Your task to perform on an android device: change the upload size in google photos Image 0: 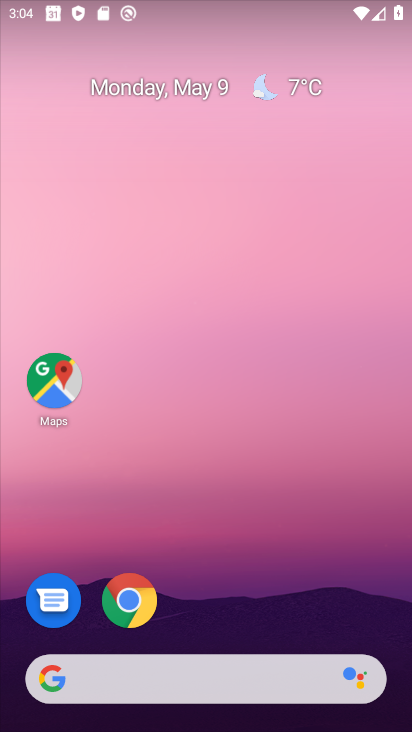
Step 0: drag from (244, 519) to (192, 54)
Your task to perform on an android device: change the upload size in google photos Image 1: 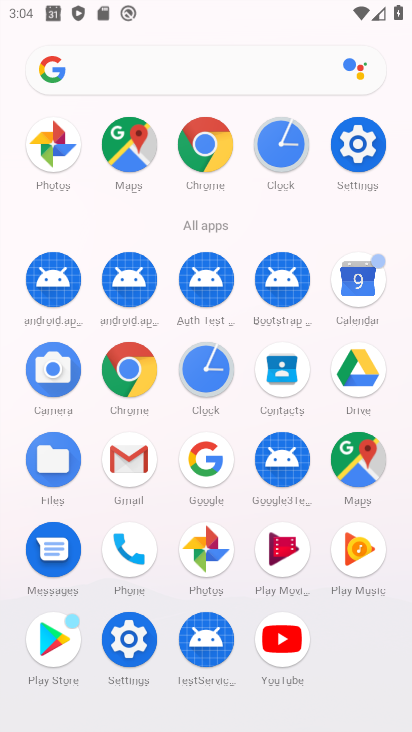
Step 1: drag from (3, 527) to (4, 284)
Your task to perform on an android device: change the upload size in google photos Image 2: 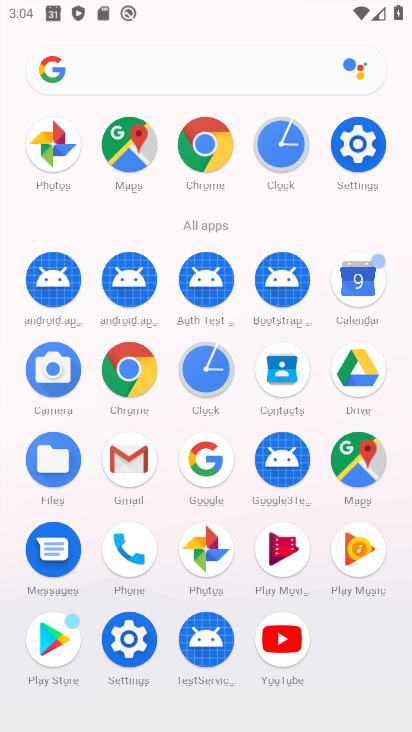
Step 2: click (48, 137)
Your task to perform on an android device: change the upload size in google photos Image 3: 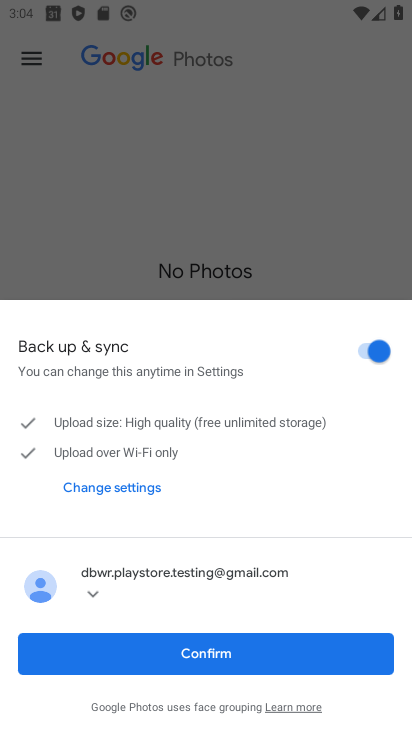
Step 3: click (195, 649)
Your task to perform on an android device: change the upload size in google photos Image 4: 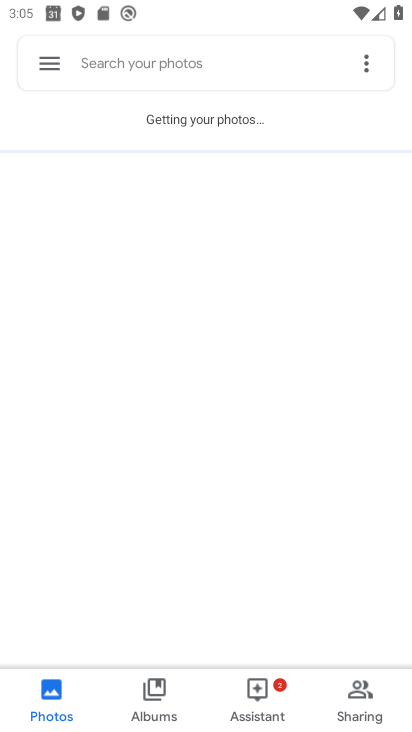
Step 4: click (51, 57)
Your task to perform on an android device: change the upload size in google photos Image 5: 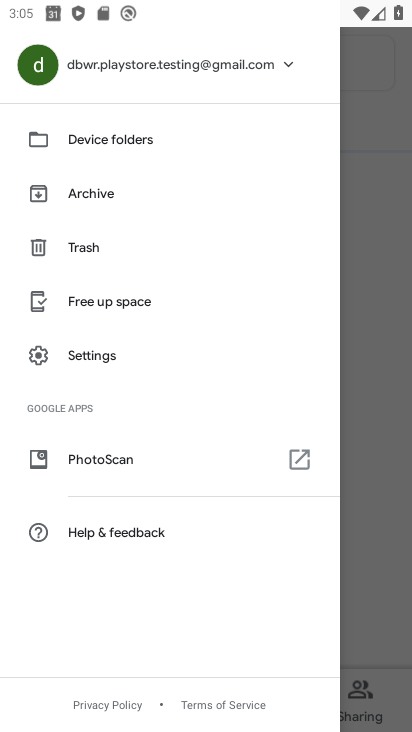
Step 5: click (117, 360)
Your task to perform on an android device: change the upload size in google photos Image 6: 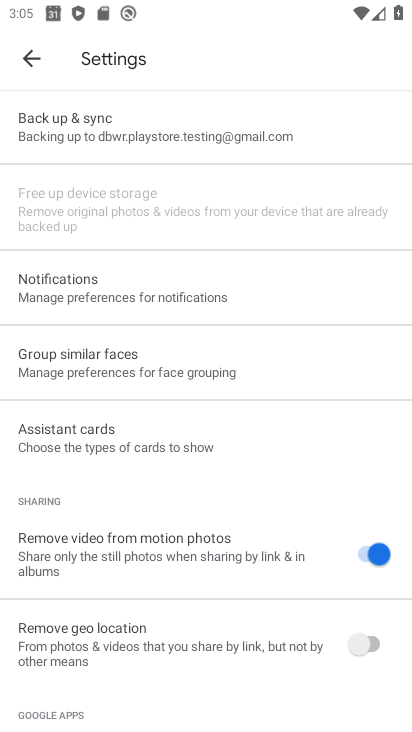
Step 6: drag from (220, 613) to (210, 113)
Your task to perform on an android device: change the upload size in google photos Image 7: 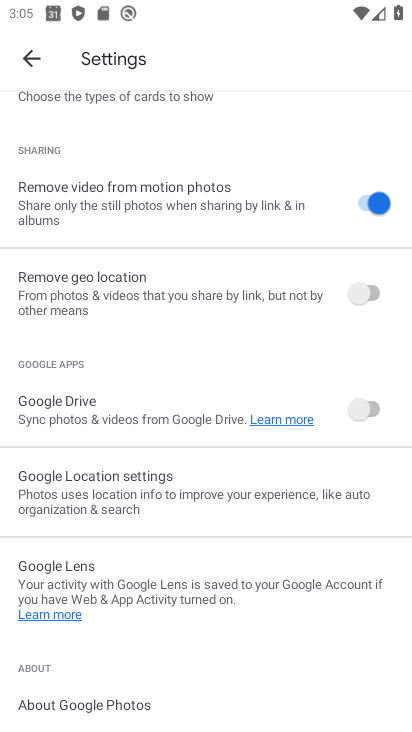
Step 7: drag from (210, 112) to (154, 590)
Your task to perform on an android device: change the upload size in google photos Image 8: 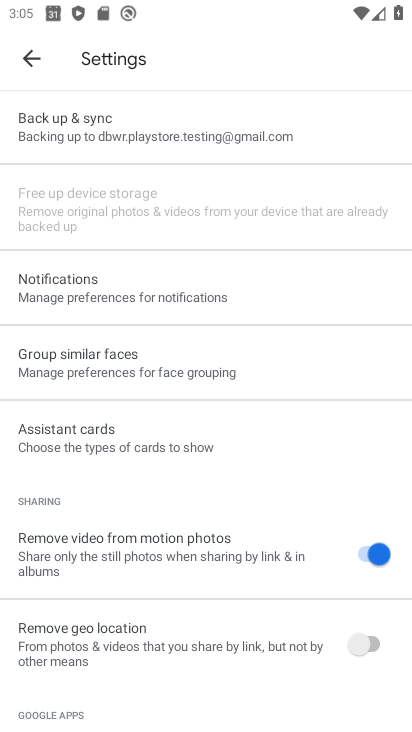
Step 8: drag from (232, 174) to (185, 512)
Your task to perform on an android device: change the upload size in google photos Image 9: 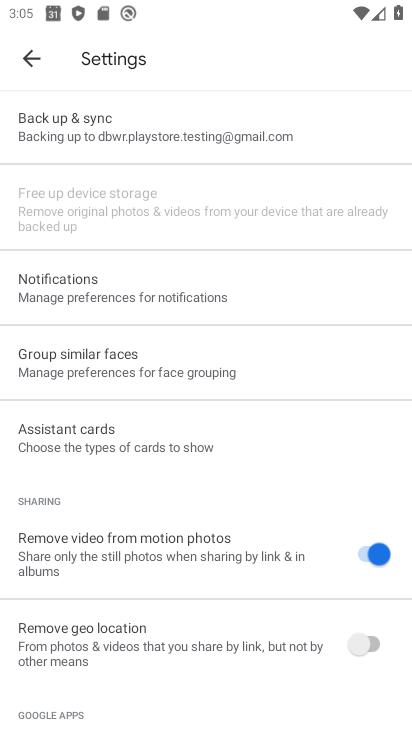
Step 9: click (174, 120)
Your task to perform on an android device: change the upload size in google photos Image 10: 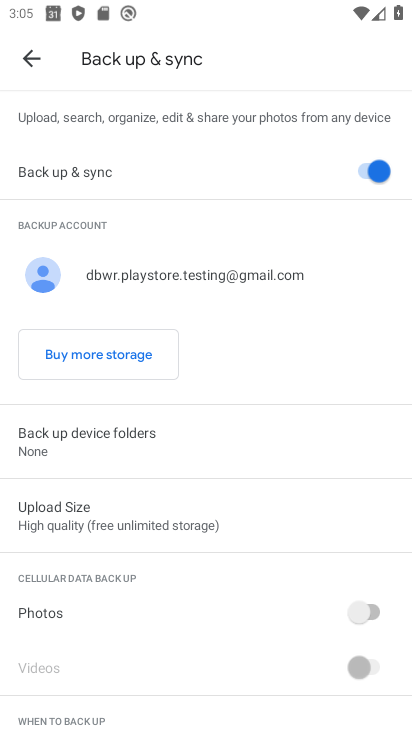
Step 10: click (184, 512)
Your task to perform on an android device: change the upload size in google photos Image 11: 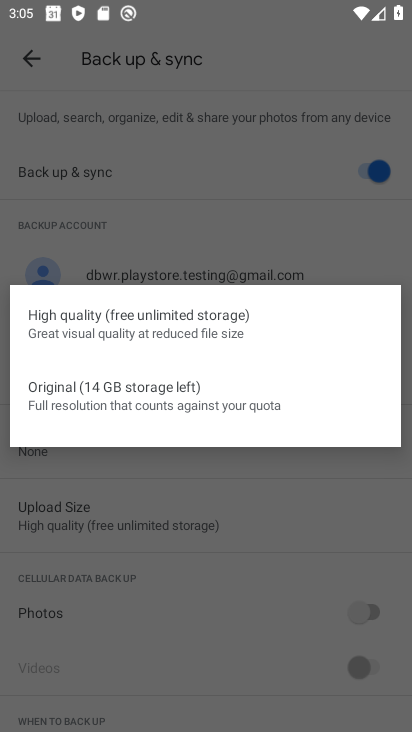
Step 11: click (154, 395)
Your task to perform on an android device: change the upload size in google photos Image 12: 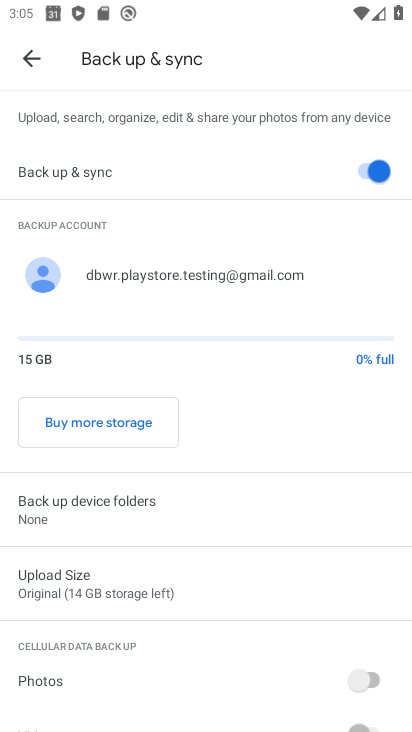
Step 12: task complete